Your task to perform on an android device: What's the weather today? Image 0: 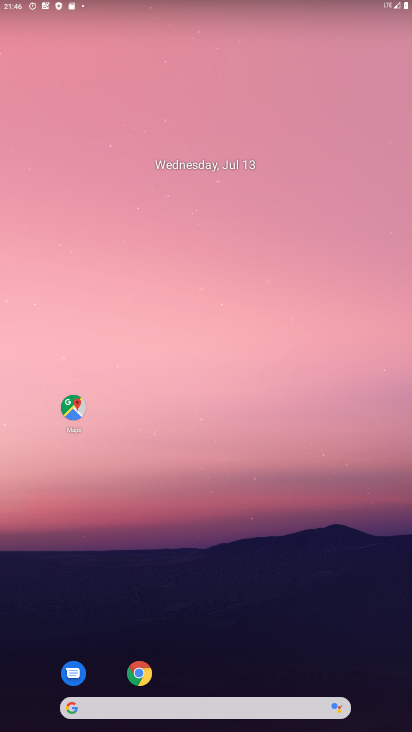
Step 0: drag from (197, 669) to (257, 217)
Your task to perform on an android device: What's the weather today? Image 1: 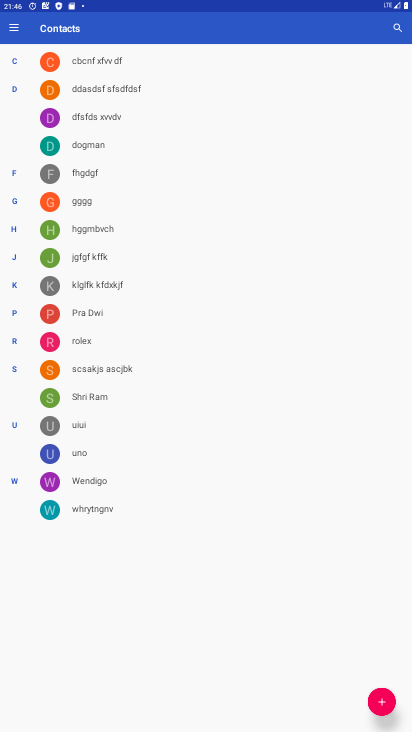
Step 1: press home button
Your task to perform on an android device: What's the weather today? Image 2: 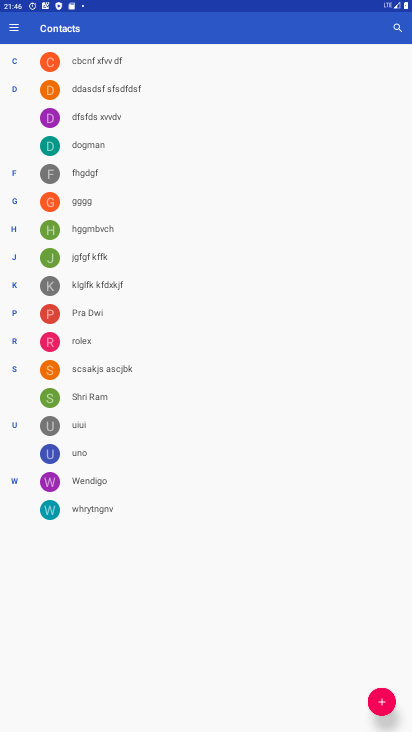
Step 2: press home button
Your task to perform on an android device: What's the weather today? Image 3: 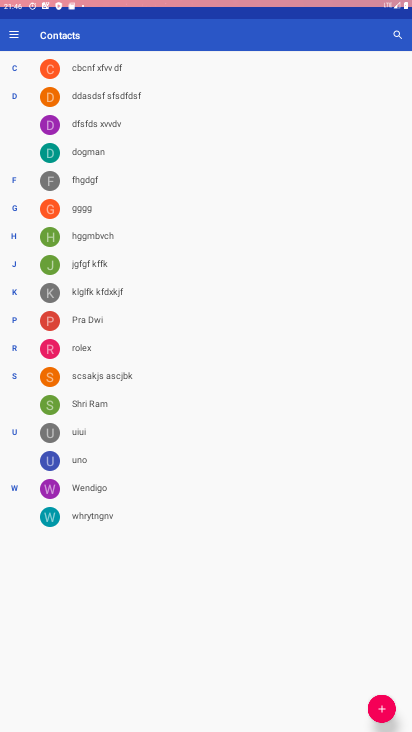
Step 3: click (228, 328)
Your task to perform on an android device: What's the weather today? Image 4: 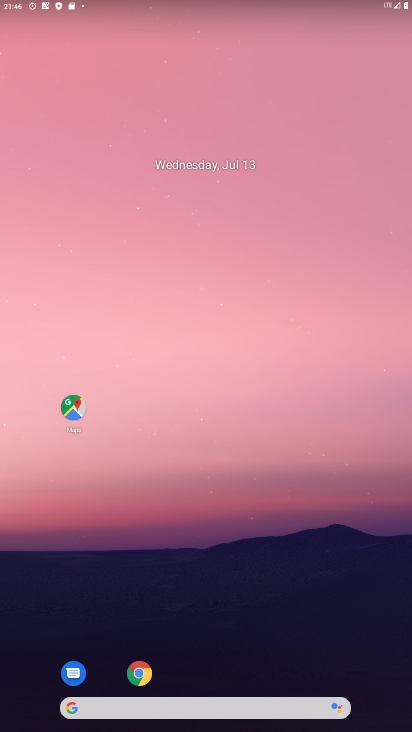
Step 4: drag from (216, 615) to (220, 186)
Your task to perform on an android device: What's the weather today? Image 5: 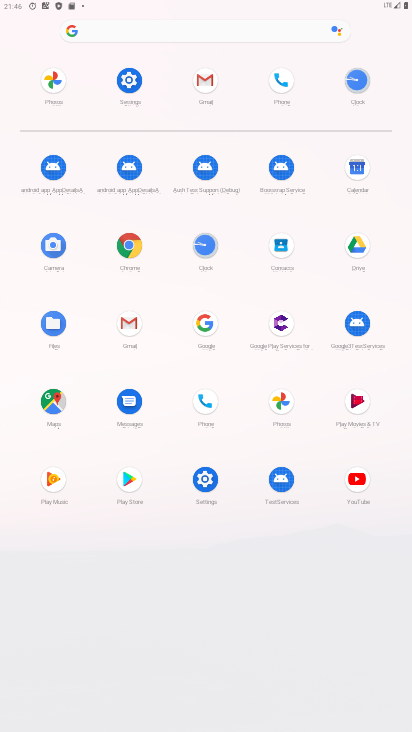
Step 5: drag from (214, 567) to (228, 273)
Your task to perform on an android device: What's the weather today? Image 6: 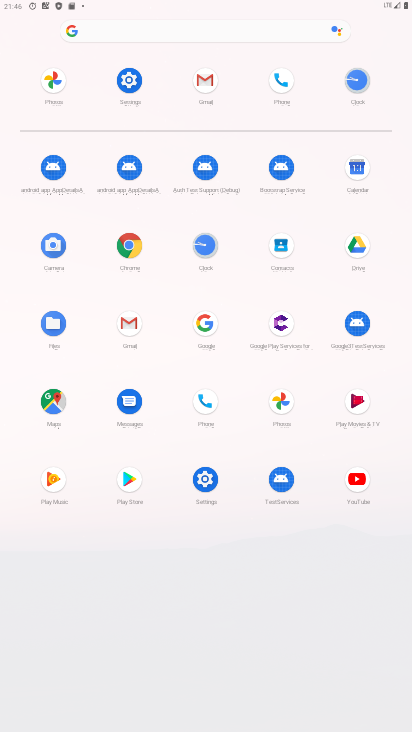
Step 6: click (199, 32)
Your task to perform on an android device: What's the weather today? Image 7: 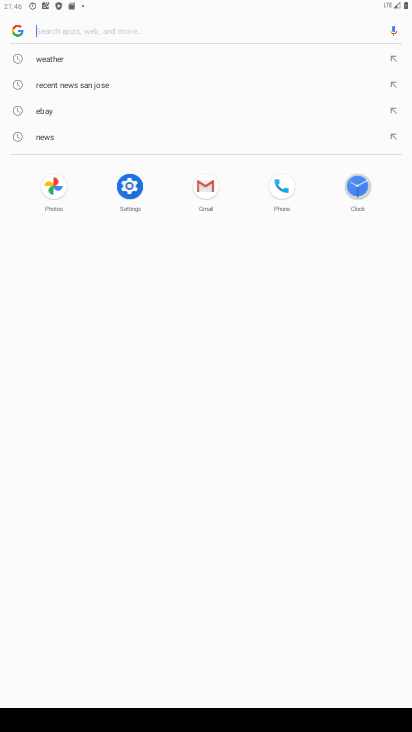
Step 7: click (72, 56)
Your task to perform on an android device: What's the weather today? Image 8: 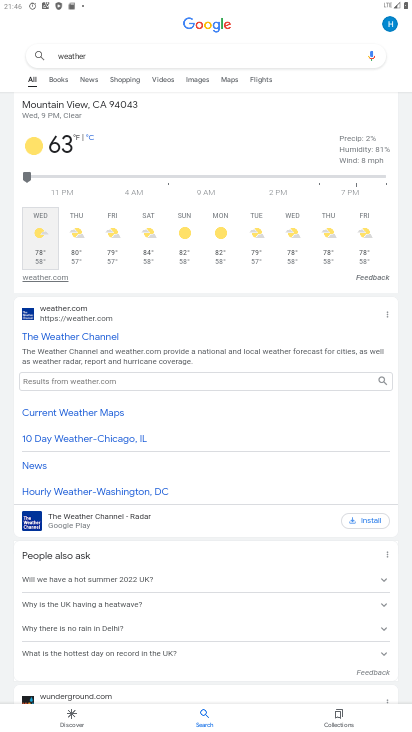
Step 8: task complete